Your task to perform on an android device: Go to eBay Image 0: 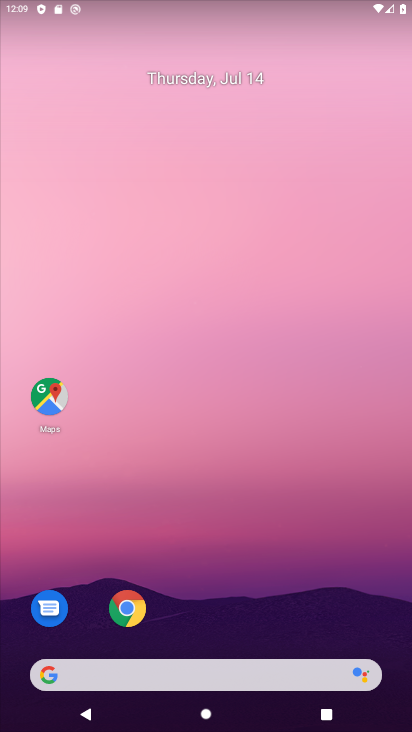
Step 0: click (117, 621)
Your task to perform on an android device: Go to eBay Image 1: 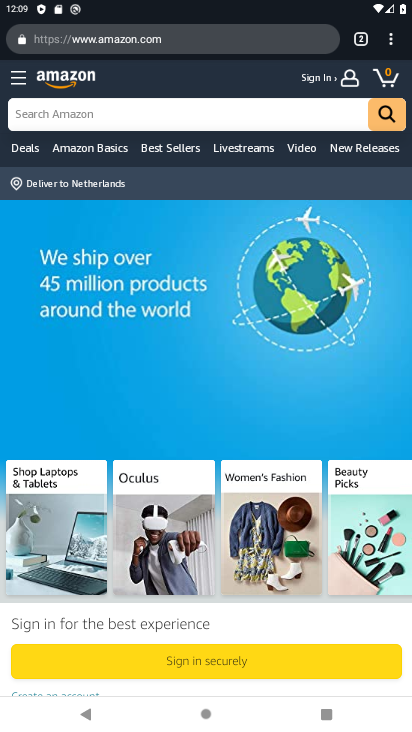
Step 1: click (361, 46)
Your task to perform on an android device: Go to eBay Image 2: 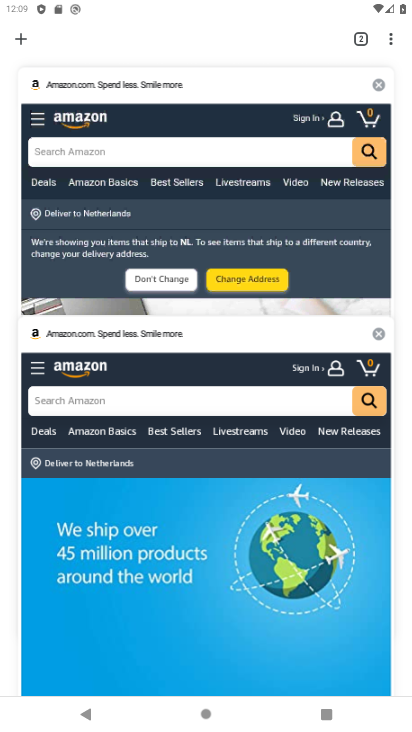
Step 2: click (378, 86)
Your task to perform on an android device: Go to eBay Image 3: 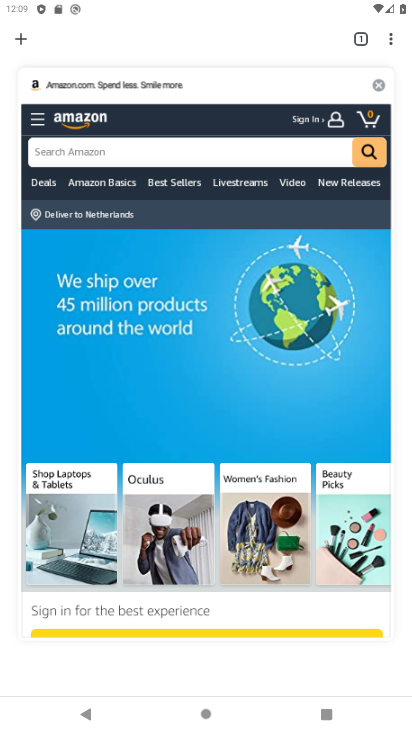
Step 3: click (376, 87)
Your task to perform on an android device: Go to eBay Image 4: 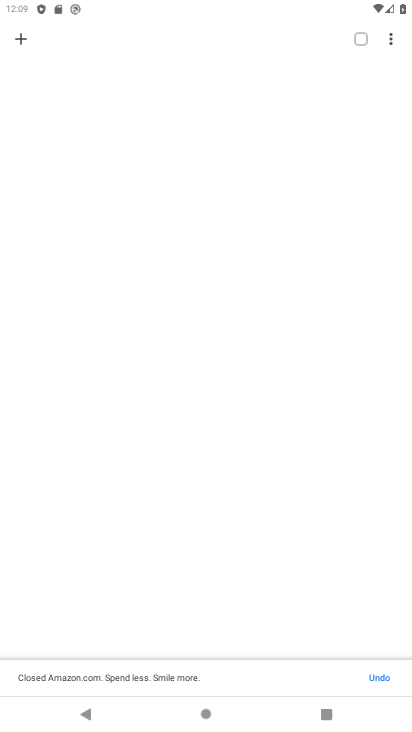
Step 4: click (16, 34)
Your task to perform on an android device: Go to eBay Image 5: 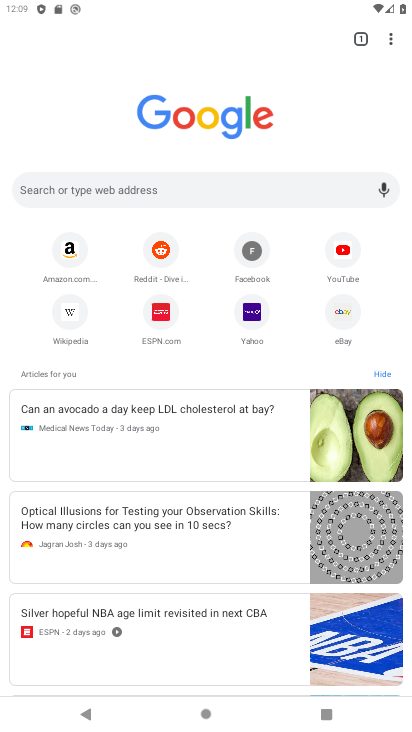
Step 5: click (354, 331)
Your task to perform on an android device: Go to eBay Image 6: 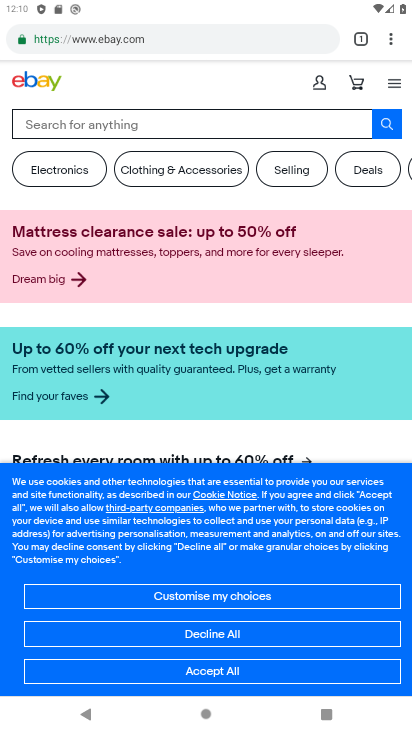
Step 6: task complete